Your task to perform on an android device: Go to Google maps Image 0: 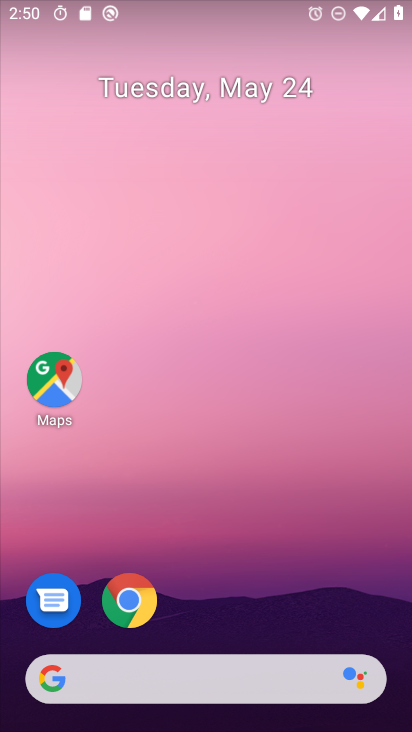
Step 0: click (64, 377)
Your task to perform on an android device: Go to Google maps Image 1: 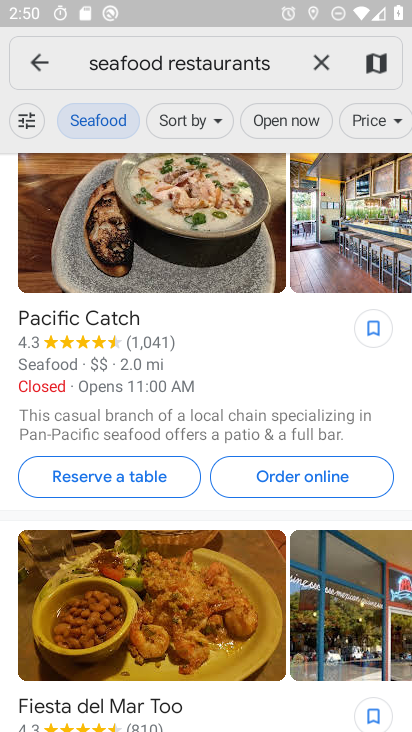
Step 1: task complete